Your task to perform on an android device: snooze an email in the gmail app Image 0: 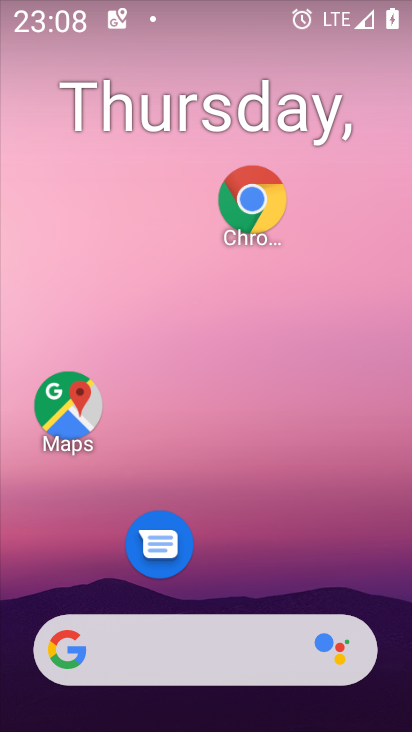
Step 0: drag from (230, 585) to (326, 192)
Your task to perform on an android device: snooze an email in the gmail app Image 1: 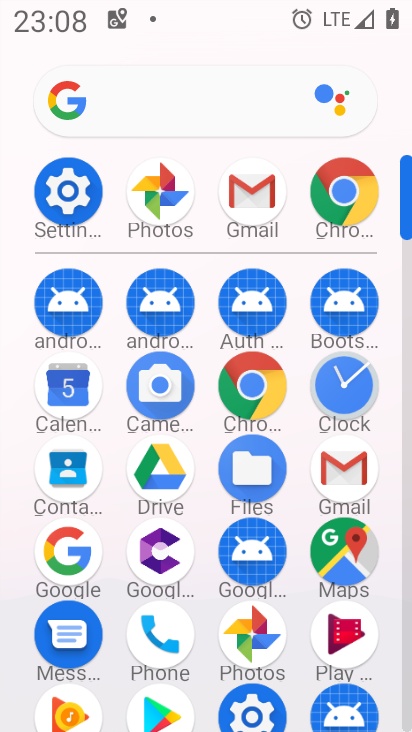
Step 1: click (259, 199)
Your task to perform on an android device: snooze an email in the gmail app Image 2: 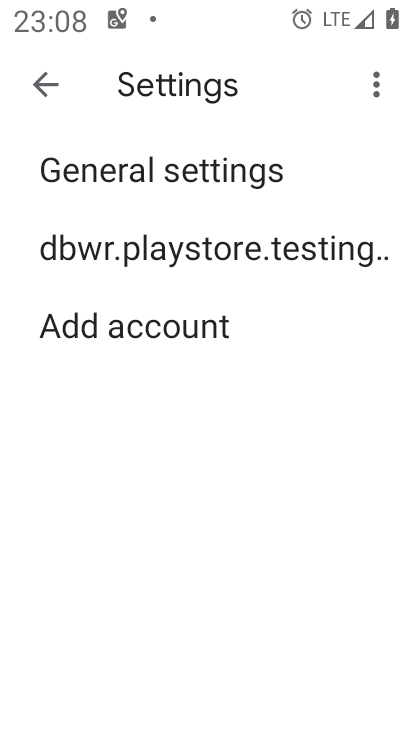
Step 2: click (56, 97)
Your task to perform on an android device: snooze an email in the gmail app Image 3: 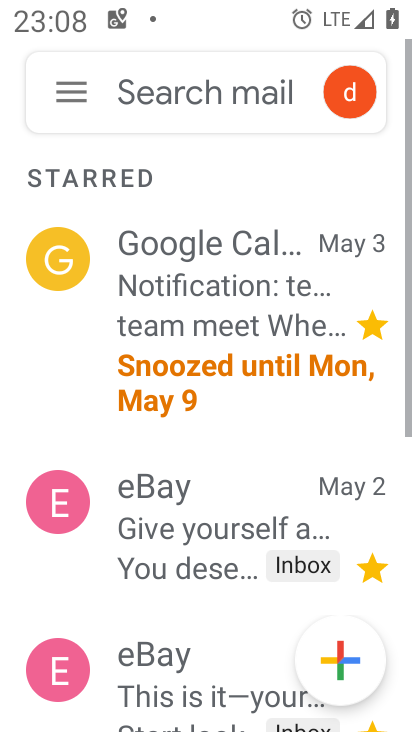
Step 3: click (60, 248)
Your task to perform on an android device: snooze an email in the gmail app Image 4: 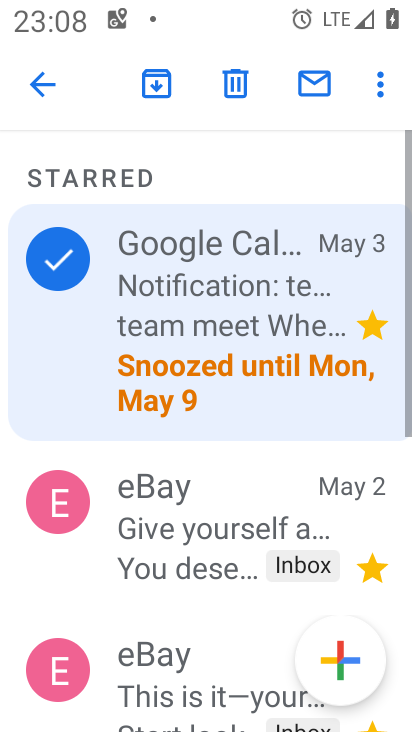
Step 4: click (392, 75)
Your task to perform on an android device: snooze an email in the gmail app Image 5: 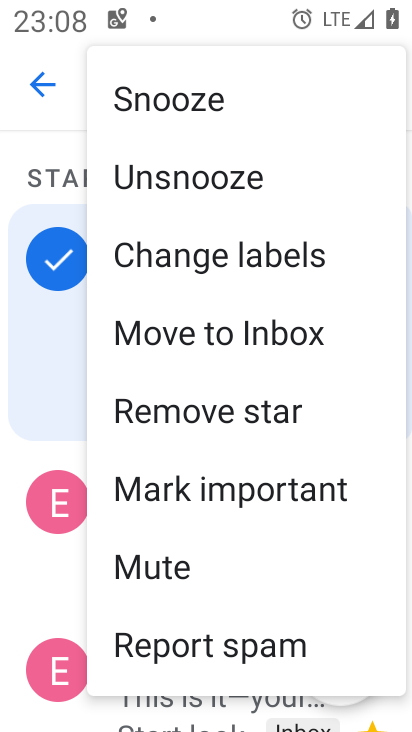
Step 5: click (211, 113)
Your task to perform on an android device: snooze an email in the gmail app Image 6: 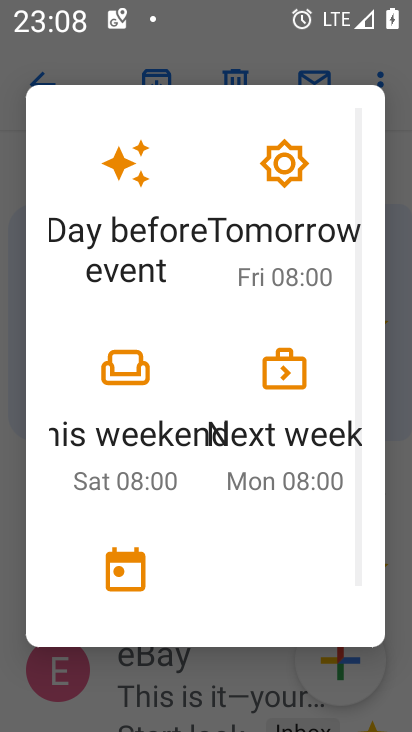
Step 6: click (117, 585)
Your task to perform on an android device: snooze an email in the gmail app Image 7: 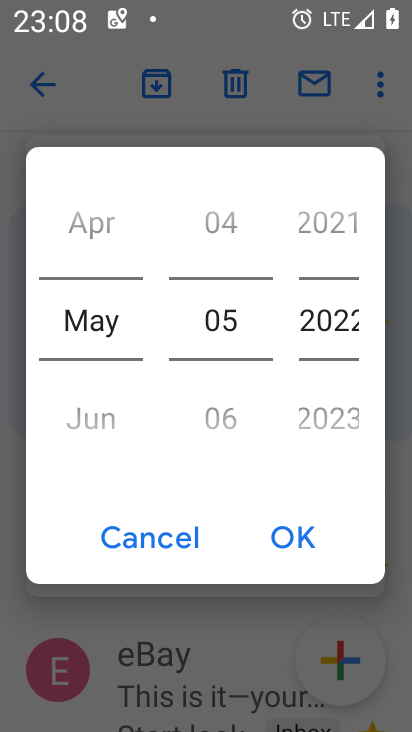
Step 7: click (310, 555)
Your task to perform on an android device: snooze an email in the gmail app Image 8: 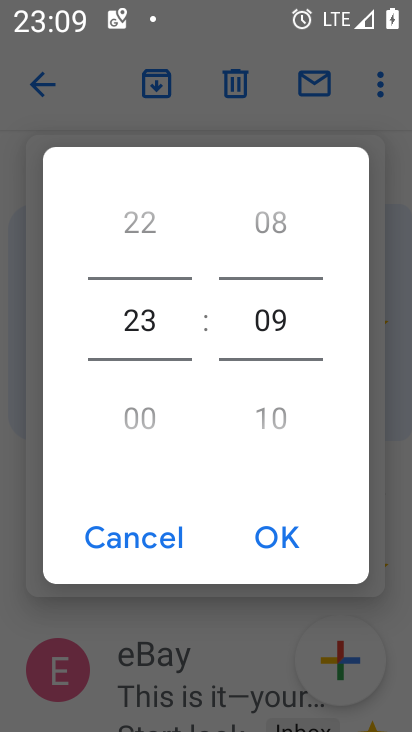
Step 8: click (282, 534)
Your task to perform on an android device: snooze an email in the gmail app Image 9: 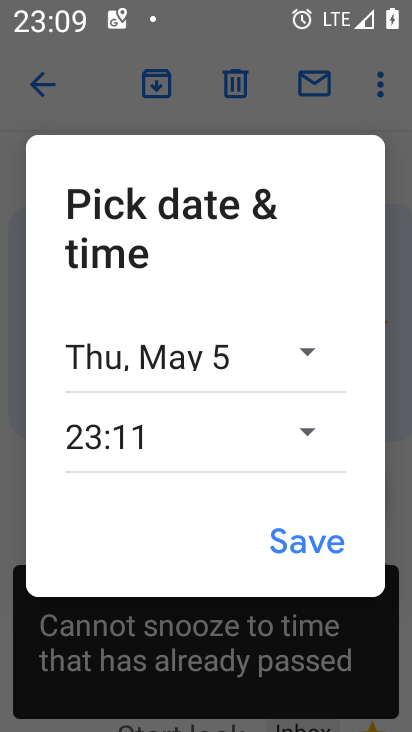
Step 9: click (282, 534)
Your task to perform on an android device: snooze an email in the gmail app Image 10: 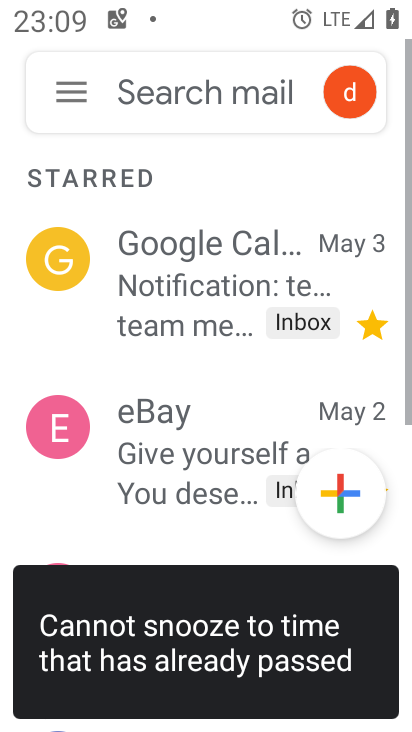
Step 10: task complete